Your task to perform on an android device: allow cookies in the chrome app Image 0: 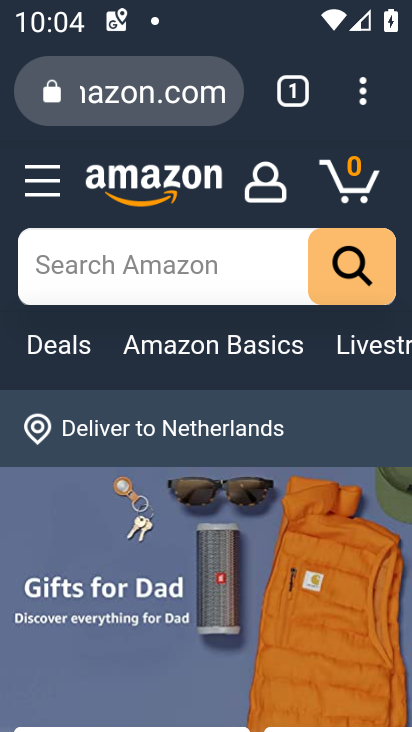
Step 0: click (357, 82)
Your task to perform on an android device: allow cookies in the chrome app Image 1: 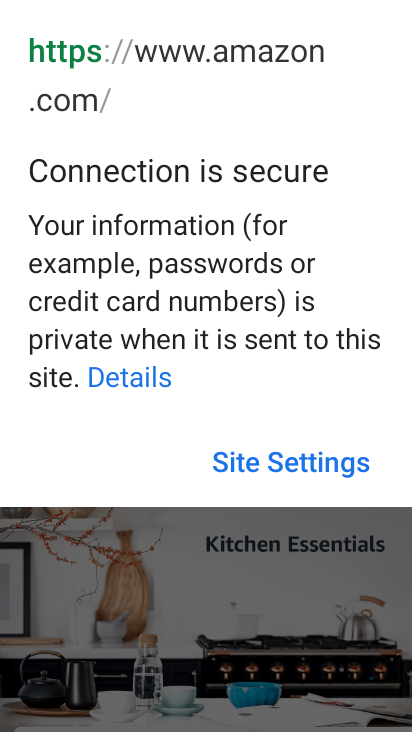
Step 1: press back button
Your task to perform on an android device: allow cookies in the chrome app Image 2: 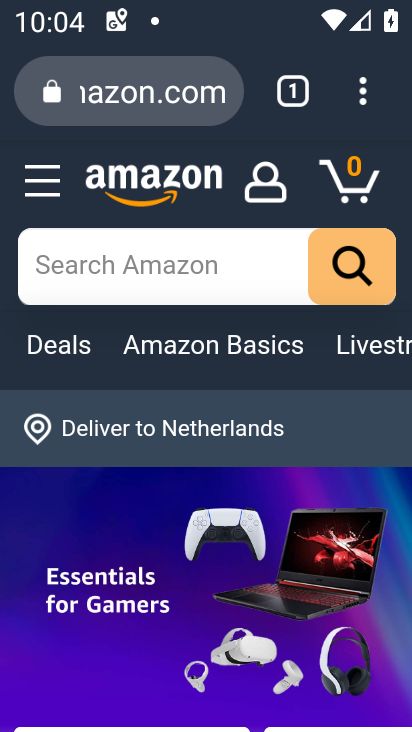
Step 2: click (361, 91)
Your task to perform on an android device: allow cookies in the chrome app Image 3: 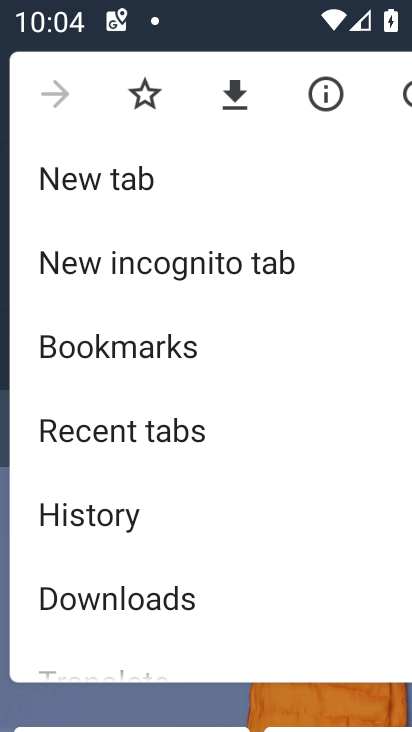
Step 3: drag from (220, 616) to (194, 298)
Your task to perform on an android device: allow cookies in the chrome app Image 4: 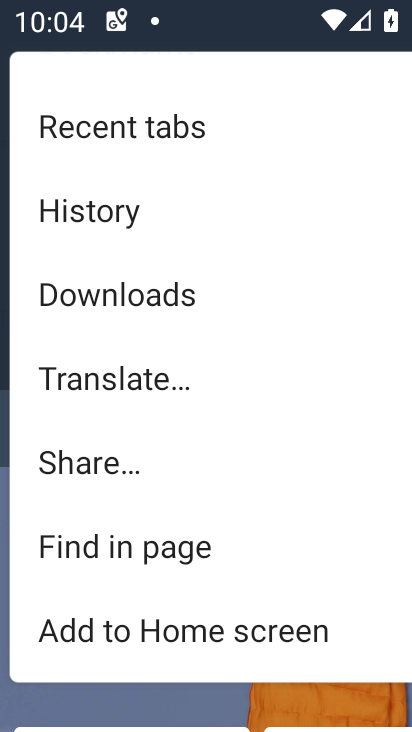
Step 4: drag from (96, 616) to (149, 356)
Your task to perform on an android device: allow cookies in the chrome app Image 5: 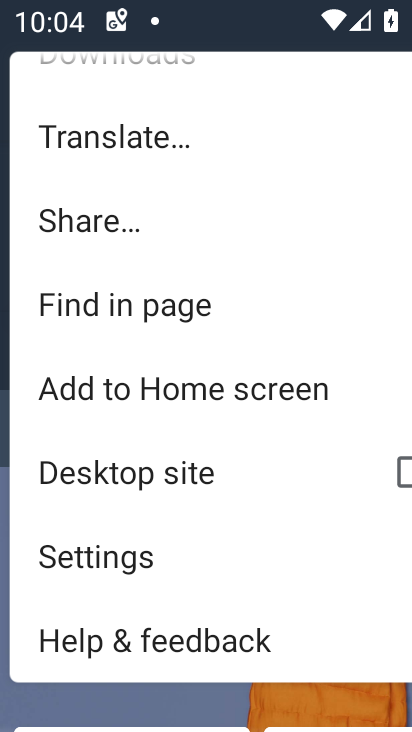
Step 5: click (127, 560)
Your task to perform on an android device: allow cookies in the chrome app Image 6: 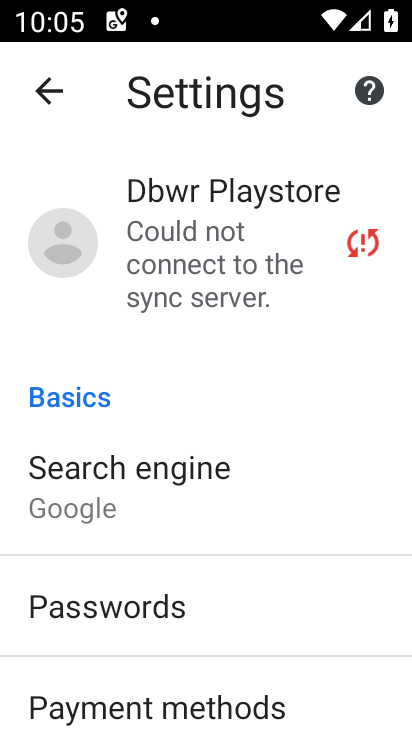
Step 6: drag from (97, 657) to (142, 272)
Your task to perform on an android device: allow cookies in the chrome app Image 7: 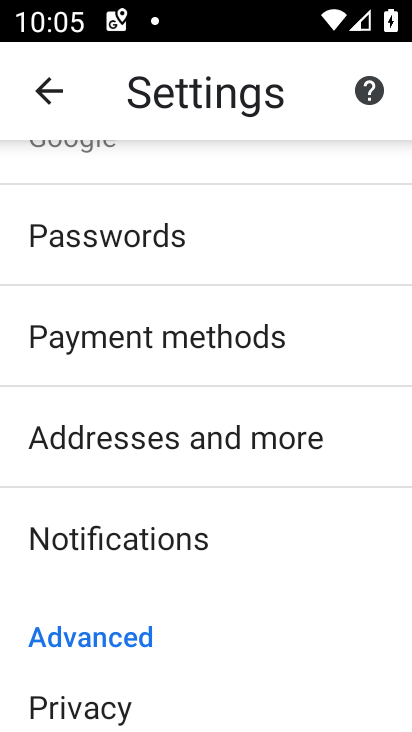
Step 7: drag from (151, 639) to (144, 303)
Your task to perform on an android device: allow cookies in the chrome app Image 8: 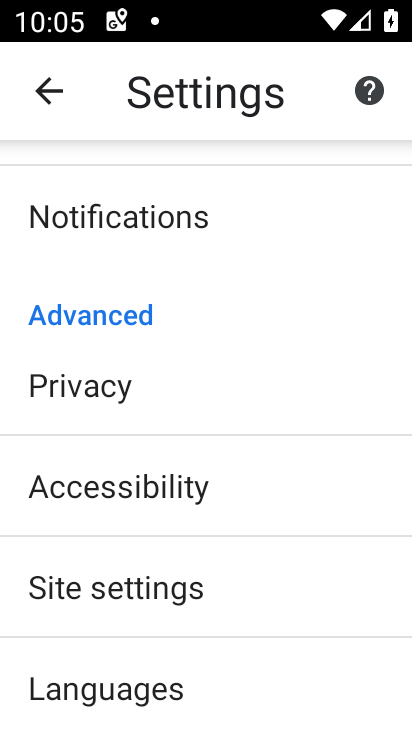
Step 8: click (100, 591)
Your task to perform on an android device: allow cookies in the chrome app Image 9: 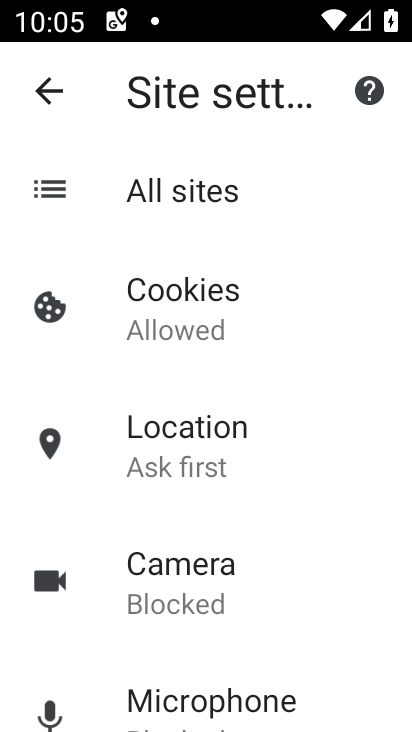
Step 9: click (190, 311)
Your task to perform on an android device: allow cookies in the chrome app Image 10: 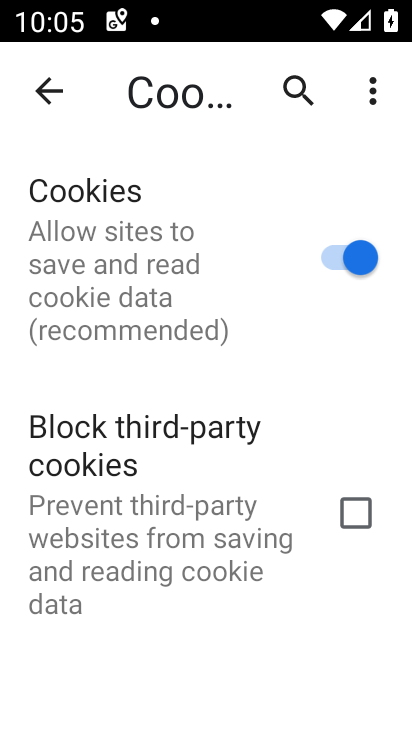
Step 10: task complete